Your task to perform on an android device: clear all cookies in the chrome app Image 0: 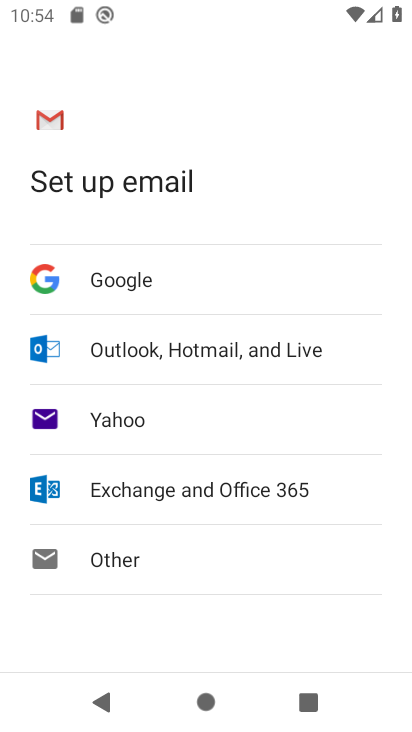
Step 0: press home button
Your task to perform on an android device: clear all cookies in the chrome app Image 1: 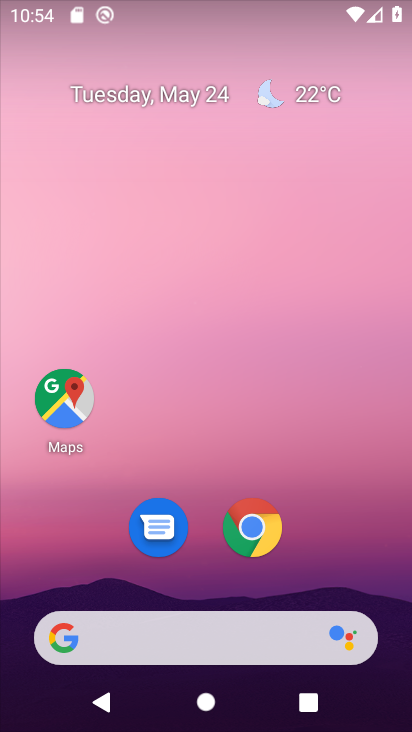
Step 1: click (258, 537)
Your task to perform on an android device: clear all cookies in the chrome app Image 2: 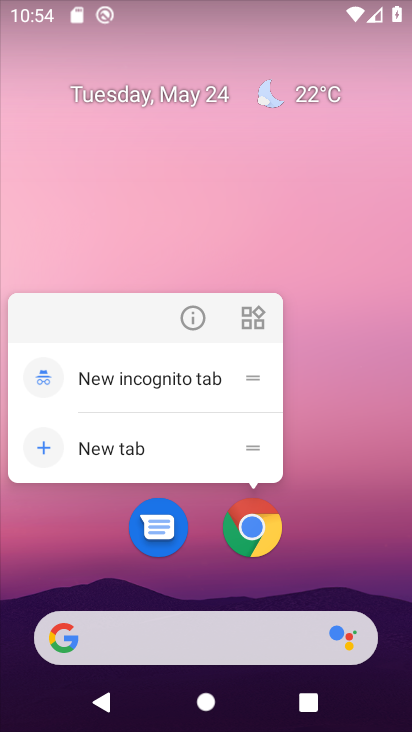
Step 2: click (258, 537)
Your task to perform on an android device: clear all cookies in the chrome app Image 3: 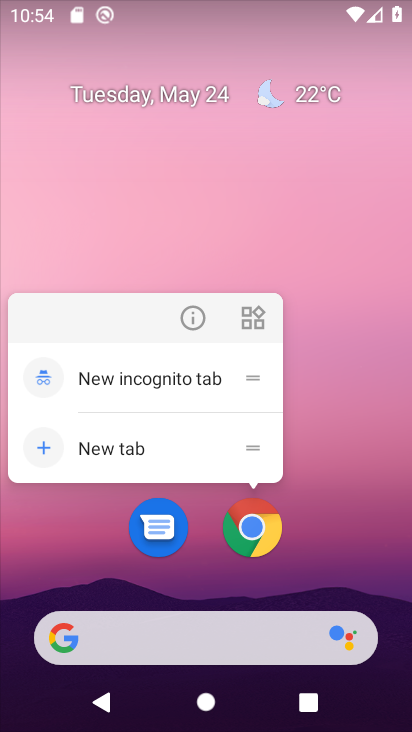
Step 3: click (251, 536)
Your task to perform on an android device: clear all cookies in the chrome app Image 4: 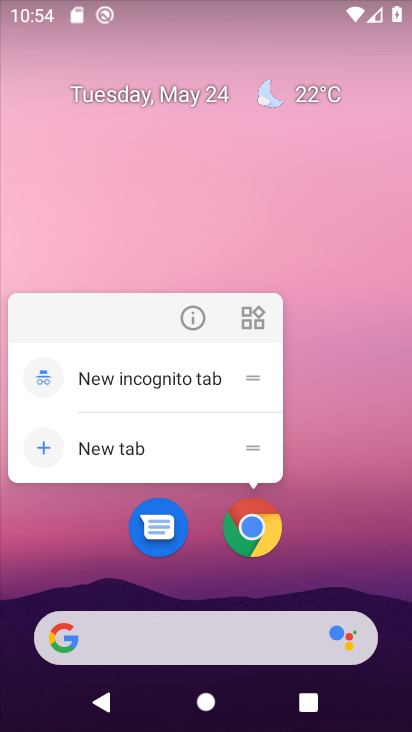
Step 4: click (243, 544)
Your task to perform on an android device: clear all cookies in the chrome app Image 5: 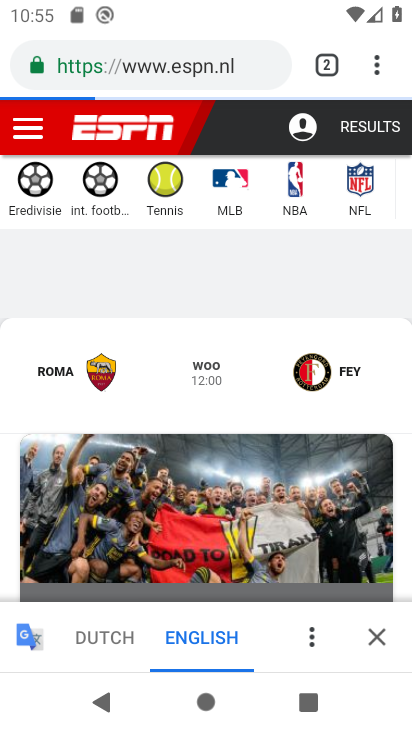
Step 5: drag from (376, 77) to (206, 585)
Your task to perform on an android device: clear all cookies in the chrome app Image 6: 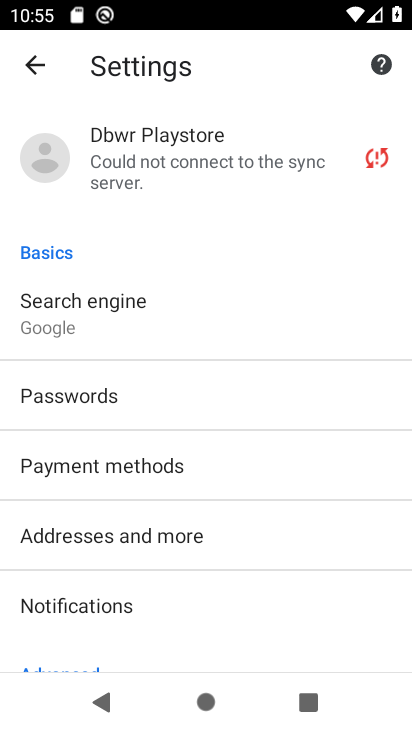
Step 6: drag from (145, 645) to (261, 190)
Your task to perform on an android device: clear all cookies in the chrome app Image 7: 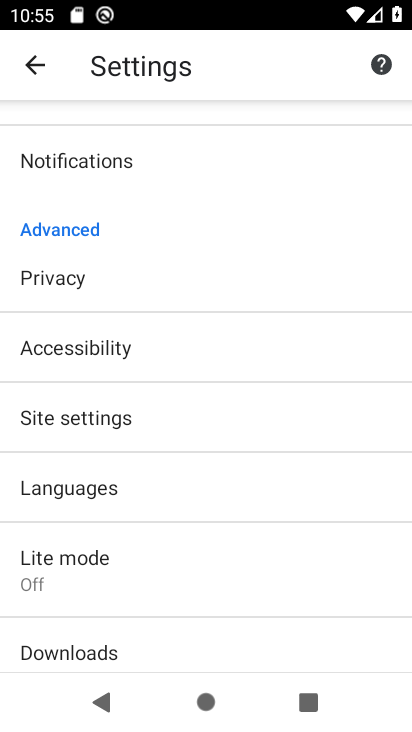
Step 7: click (67, 274)
Your task to perform on an android device: clear all cookies in the chrome app Image 8: 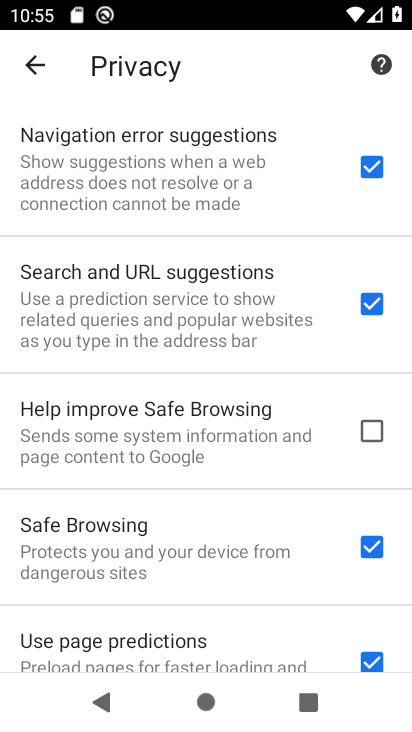
Step 8: drag from (197, 606) to (314, 132)
Your task to perform on an android device: clear all cookies in the chrome app Image 9: 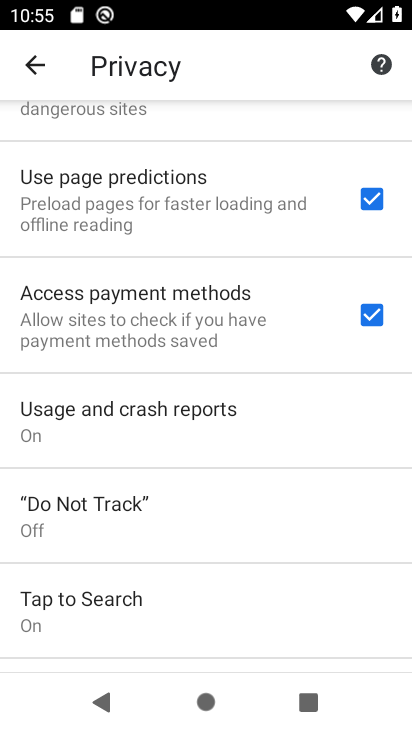
Step 9: drag from (188, 608) to (299, 212)
Your task to perform on an android device: clear all cookies in the chrome app Image 10: 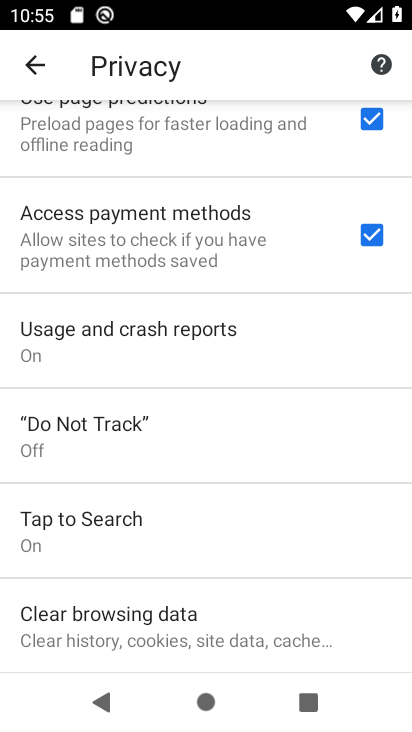
Step 10: click (156, 623)
Your task to perform on an android device: clear all cookies in the chrome app Image 11: 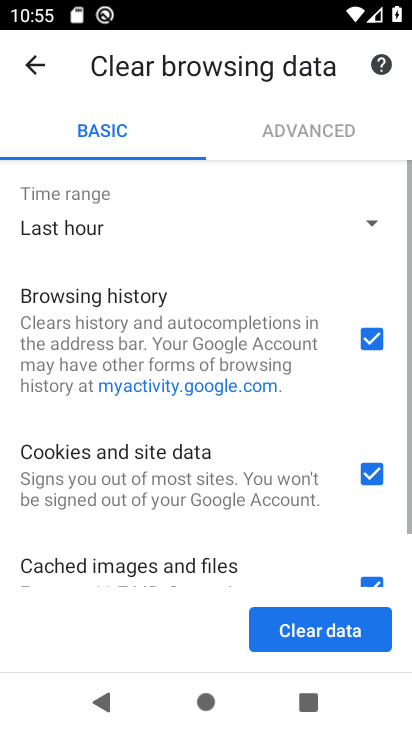
Step 11: click (358, 332)
Your task to perform on an android device: clear all cookies in the chrome app Image 12: 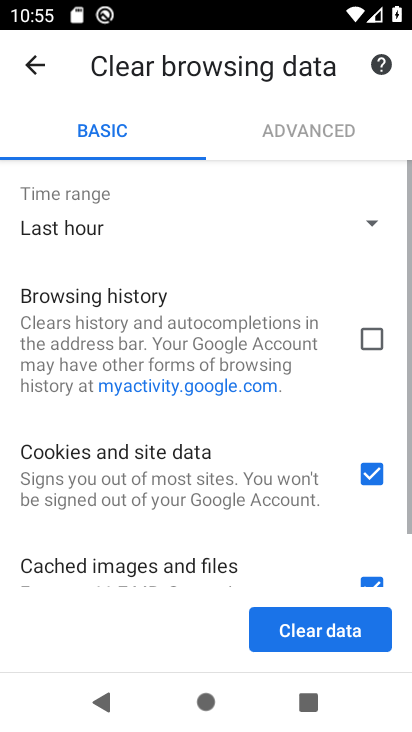
Step 12: drag from (301, 535) to (353, 350)
Your task to perform on an android device: clear all cookies in the chrome app Image 13: 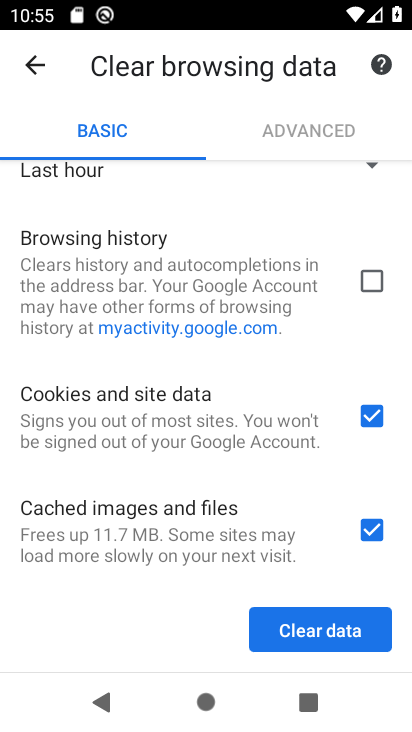
Step 13: click (380, 536)
Your task to perform on an android device: clear all cookies in the chrome app Image 14: 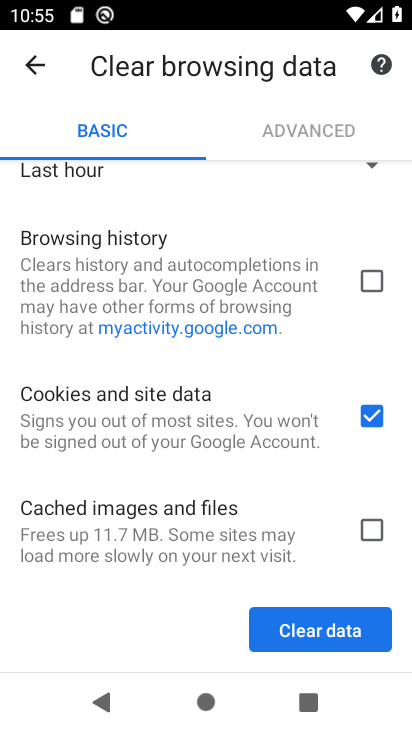
Step 14: click (320, 635)
Your task to perform on an android device: clear all cookies in the chrome app Image 15: 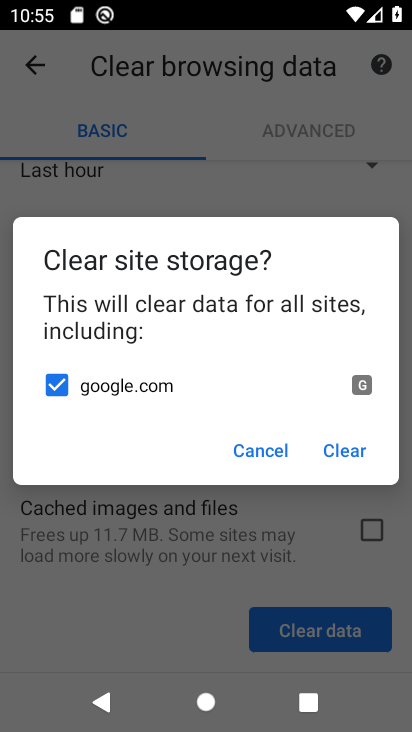
Step 15: click (336, 447)
Your task to perform on an android device: clear all cookies in the chrome app Image 16: 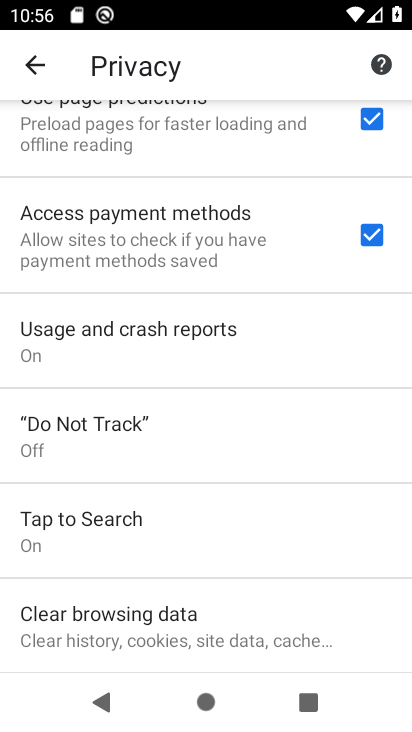
Step 16: task complete